Your task to perform on an android device: see tabs open on other devices in the chrome app Image 0: 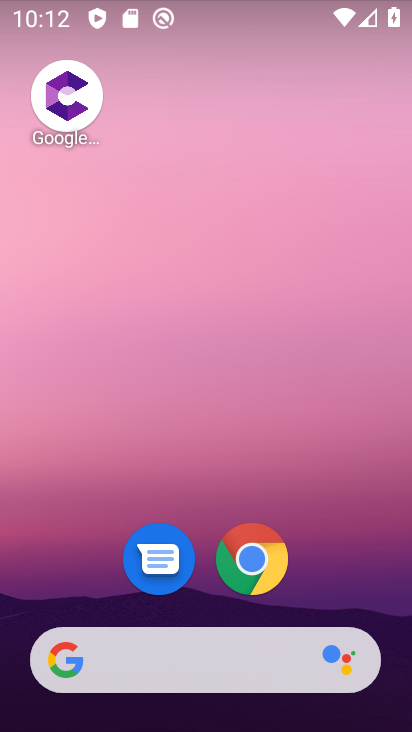
Step 0: drag from (348, 575) to (287, 139)
Your task to perform on an android device: see tabs open on other devices in the chrome app Image 1: 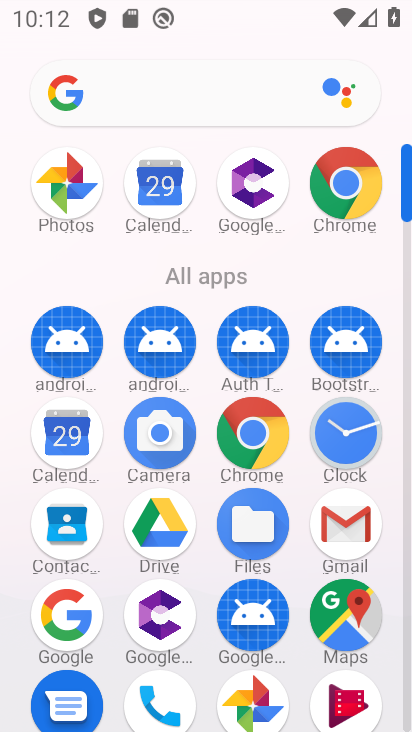
Step 1: click (273, 456)
Your task to perform on an android device: see tabs open on other devices in the chrome app Image 2: 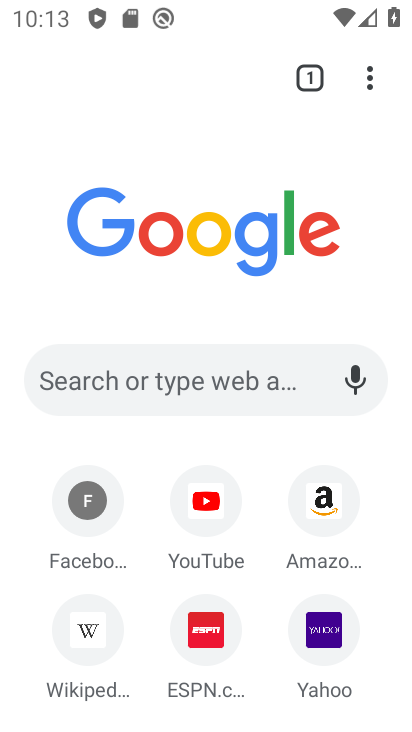
Step 2: click (263, 376)
Your task to perform on an android device: see tabs open on other devices in the chrome app Image 3: 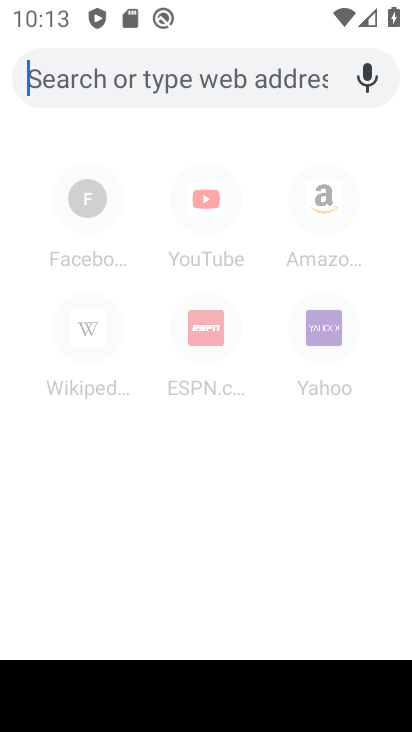
Step 3: click (327, 470)
Your task to perform on an android device: see tabs open on other devices in the chrome app Image 4: 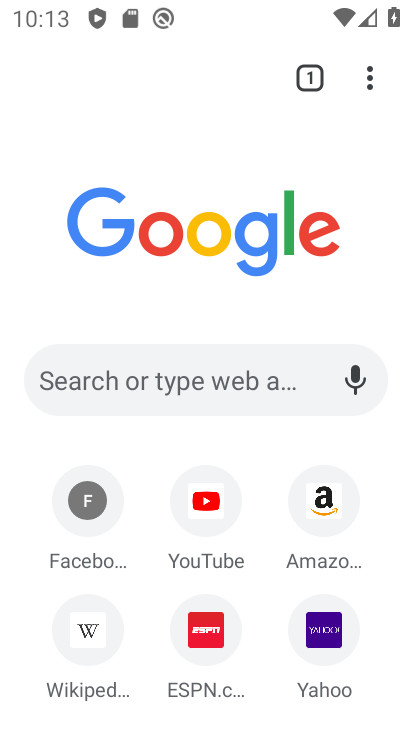
Step 4: click (309, 89)
Your task to perform on an android device: see tabs open on other devices in the chrome app Image 5: 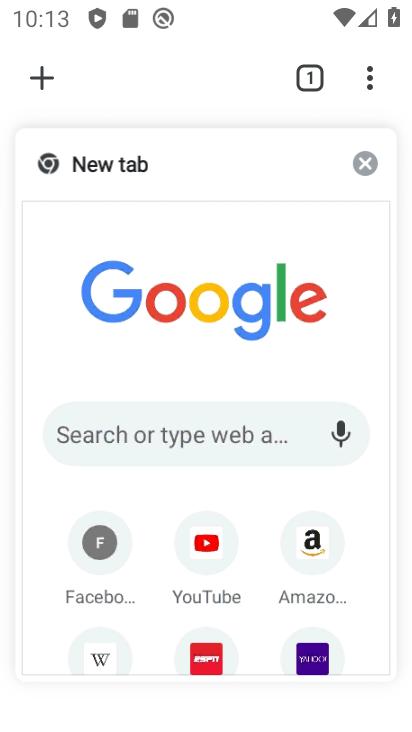
Step 5: click (44, 81)
Your task to perform on an android device: see tabs open on other devices in the chrome app Image 6: 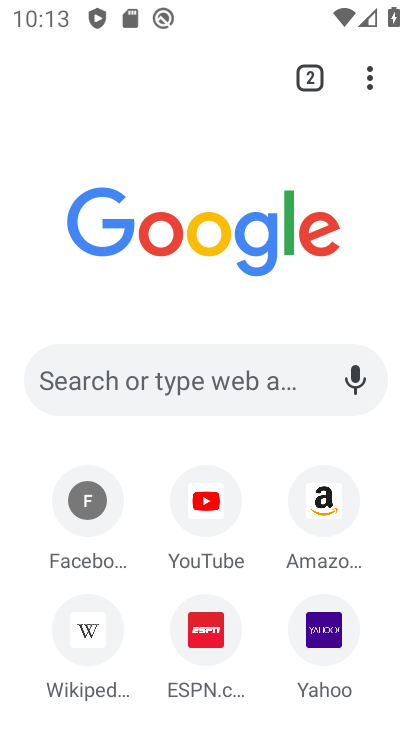
Step 6: click (208, 389)
Your task to perform on an android device: see tabs open on other devices in the chrome app Image 7: 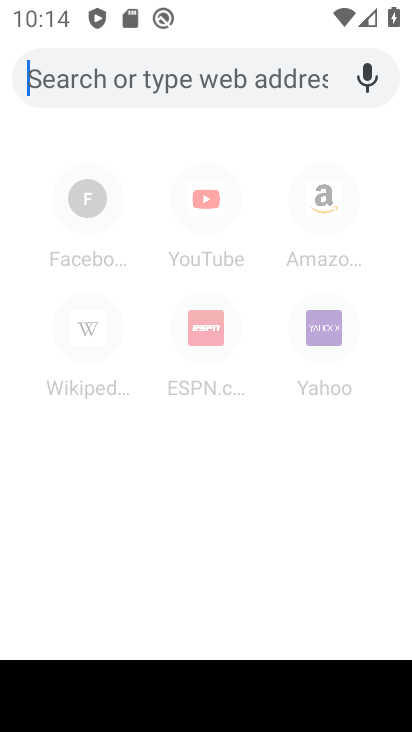
Step 7: click (109, 502)
Your task to perform on an android device: see tabs open on other devices in the chrome app Image 8: 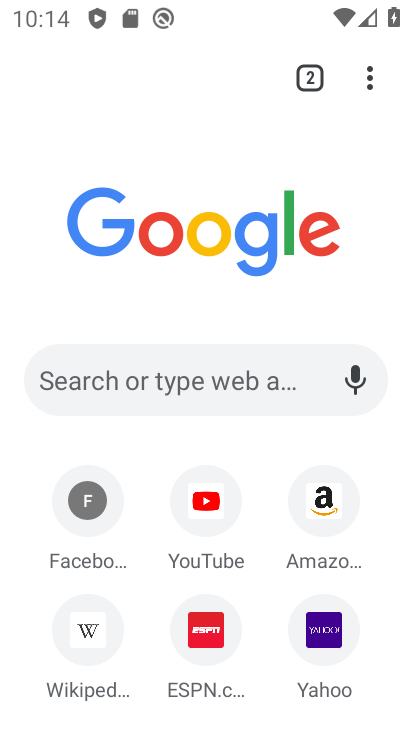
Step 8: click (310, 77)
Your task to perform on an android device: see tabs open on other devices in the chrome app Image 9: 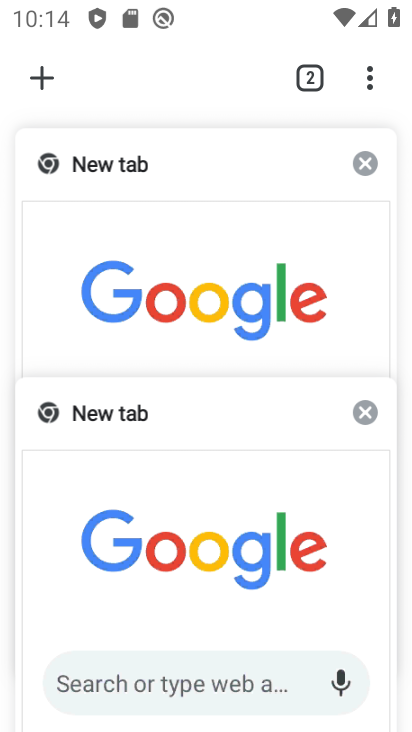
Step 9: task complete